Your task to perform on an android device: empty trash in the gmail app Image 0: 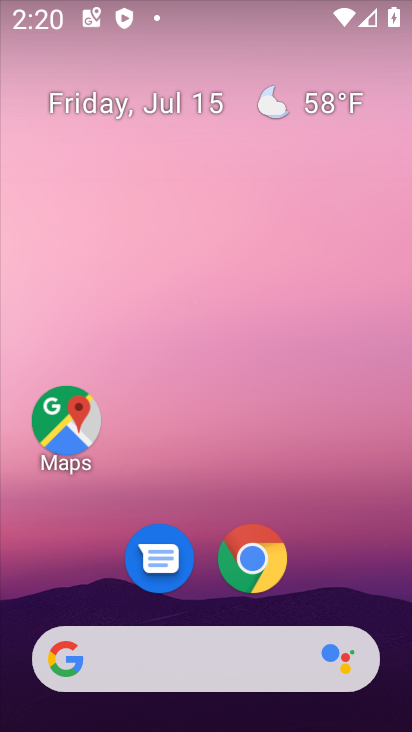
Step 0: drag from (367, 582) to (348, 137)
Your task to perform on an android device: empty trash in the gmail app Image 1: 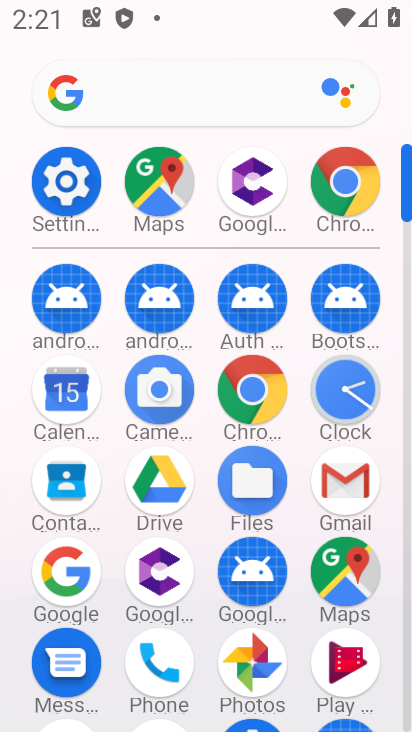
Step 1: click (345, 476)
Your task to perform on an android device: empty trash in the gmail app Image 2: 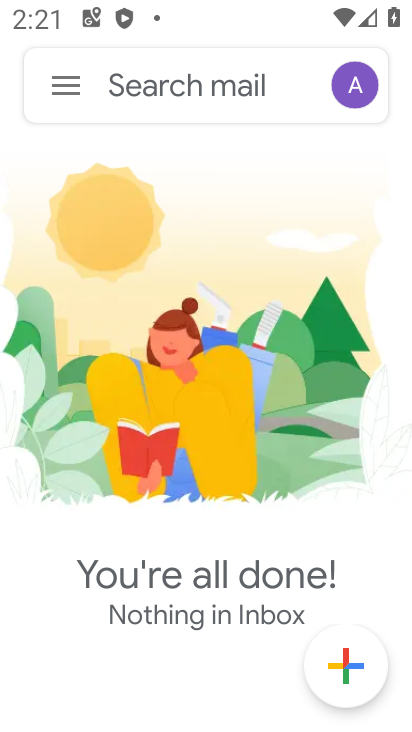
Step 2: click (67, 90)
Your task to perform on an android device: empty trash in the gmail app Image 3: 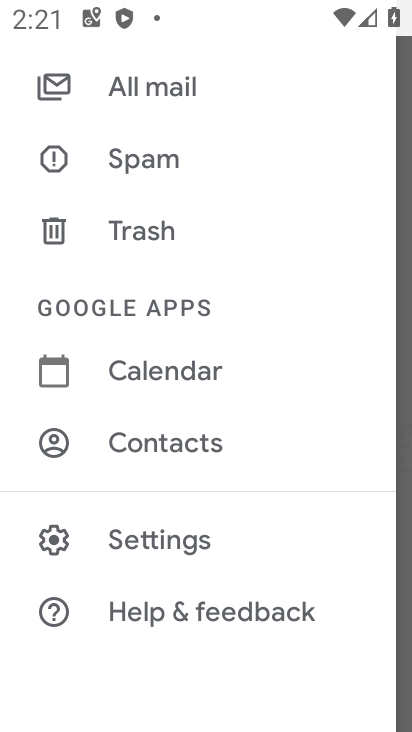
Step 3: click (204, 240)
Your task to perform on an android device: empty trash in the gmail app Image 4: 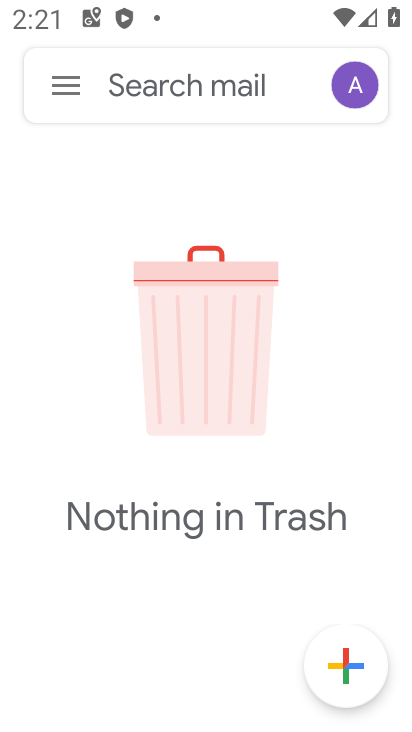
Step 4: task complete